Your task to perform on an android device: open app "Reddit" Image 0: 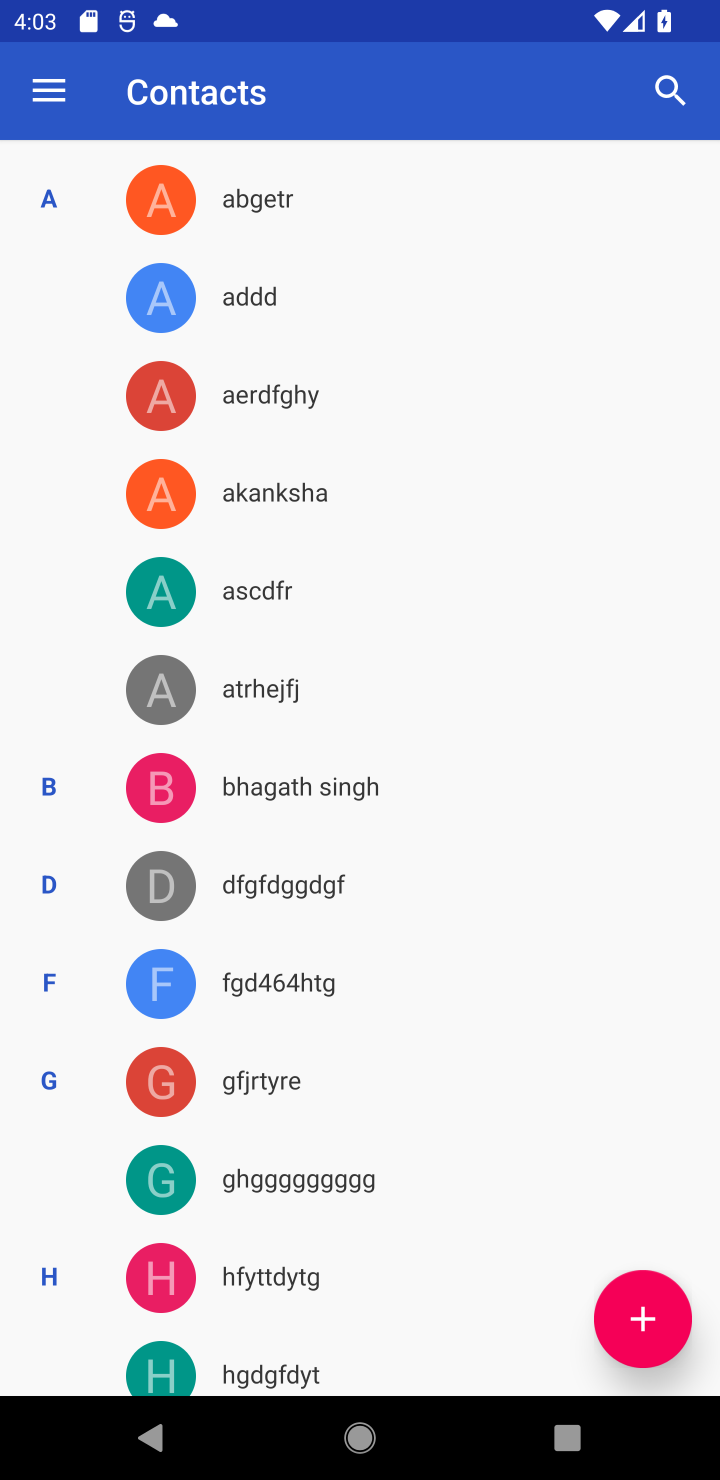
Step 0: press home button
Your task to perform on an android device: open app "Reddit" Image 1: 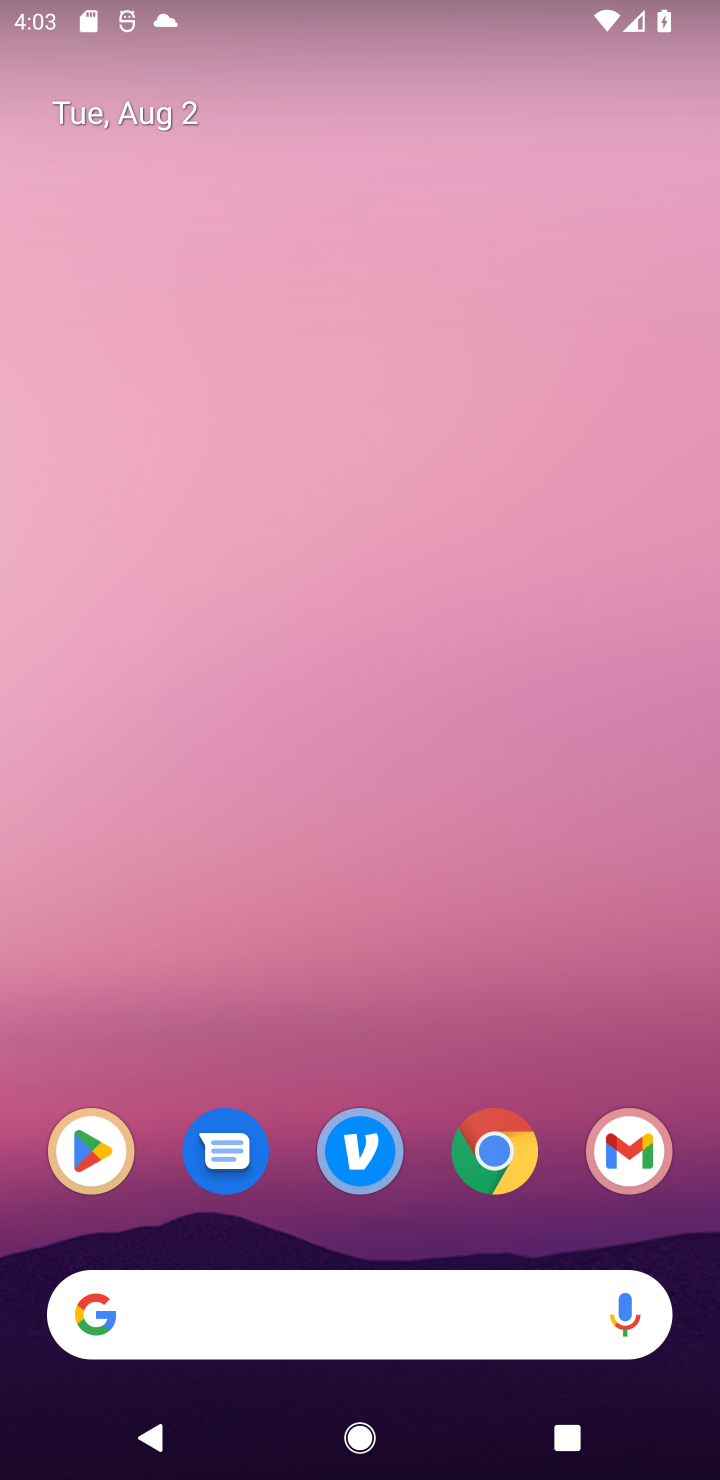
Step 1: task complete